Your task to perform on an android device: turn on showing notifications on the lock screen Image 0: 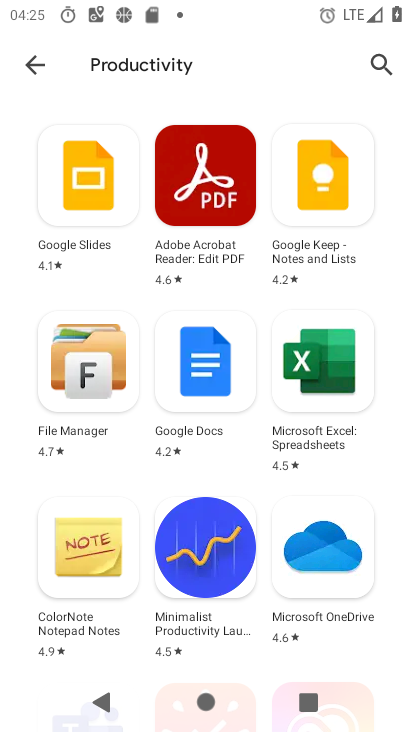
Step 0: press home button
Your task to perform on an android device: turn on showing notifications on the lock screen Image 1: 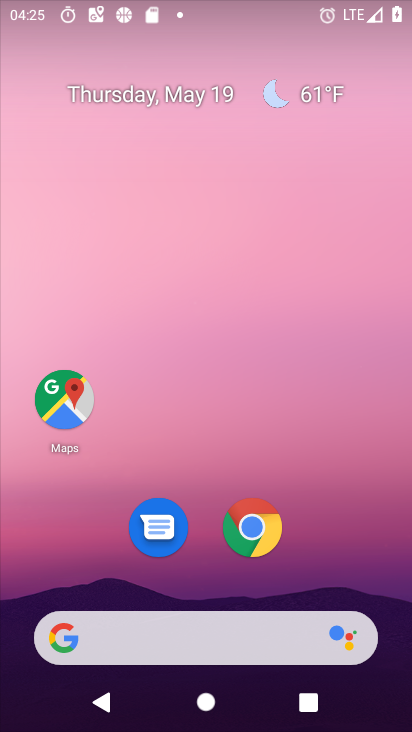
Step 1: drag from (194, 534) to (332, 51)
Your task to perform on an android device: turn on showing notifications on the lock screen Image 2: 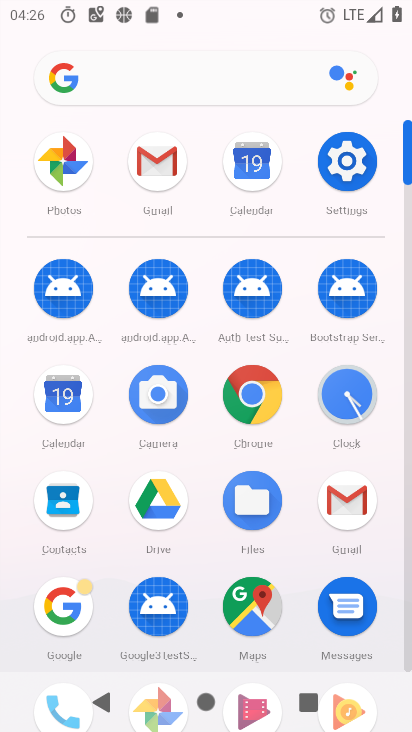
Step 2: click (352, 162)
Your task to perform on an android device: turn on showing notifications on the lock screen Image 3: 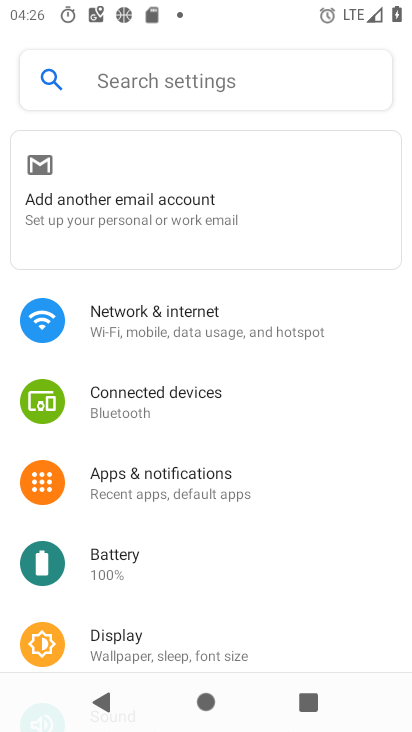
Step 3: click (172, 469)
Your task to perform on an android device: turn on showing notifications on the lock screen Image 4: 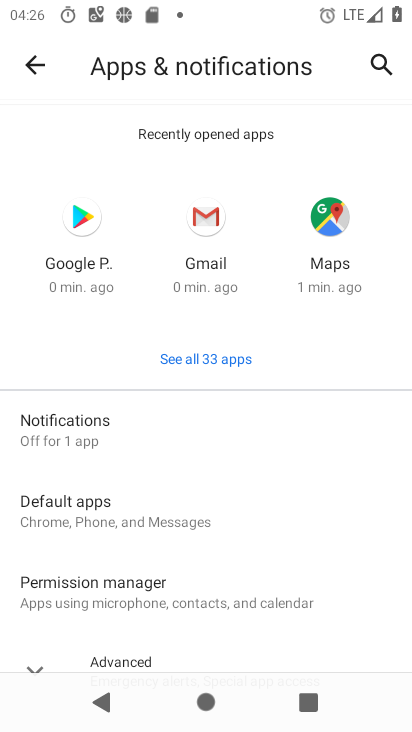
Step 4: click (128, 432)
Your task to perform on an android device: turn on showing notifications on the lock screen Image 5: 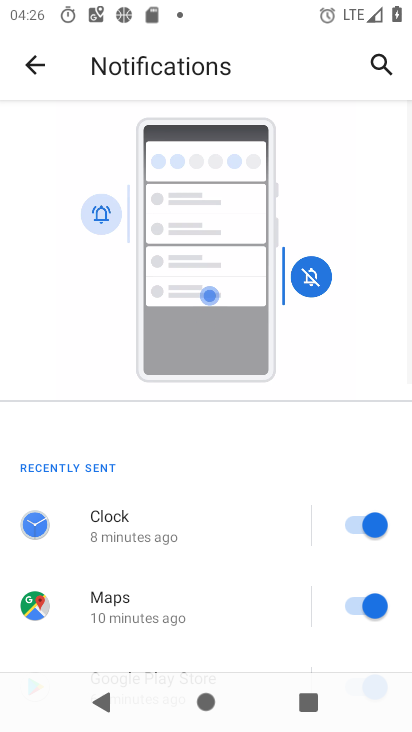
Step 5: drag from (119, 581) to (268, 78)
Your task to perform on an android device: turn on showing notifications on the lock screen Image 6: 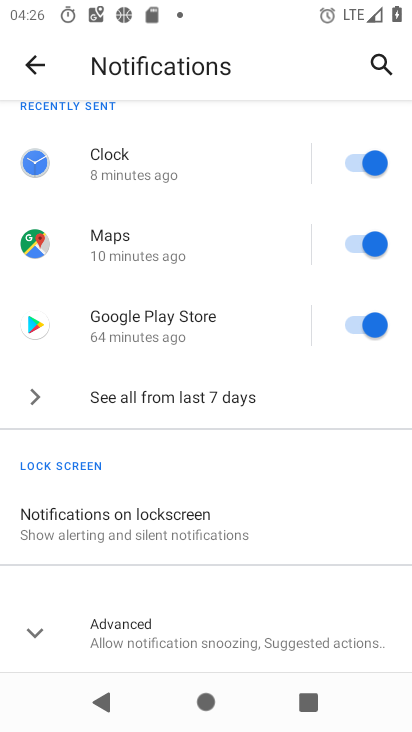
Step 6: click (136, 511)
Your task to perform on an android device: turn on showing notifications on the lock screen Image 7: 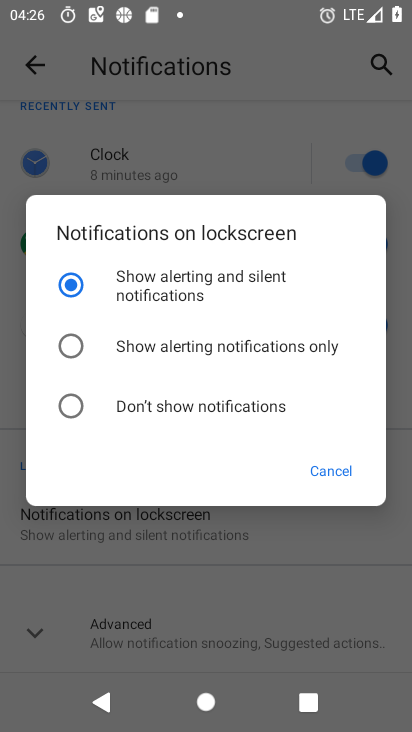
Step 7: click (70, 276)
Your task to perform on an android device: turn on showing notifications on the lock screen Image 8: 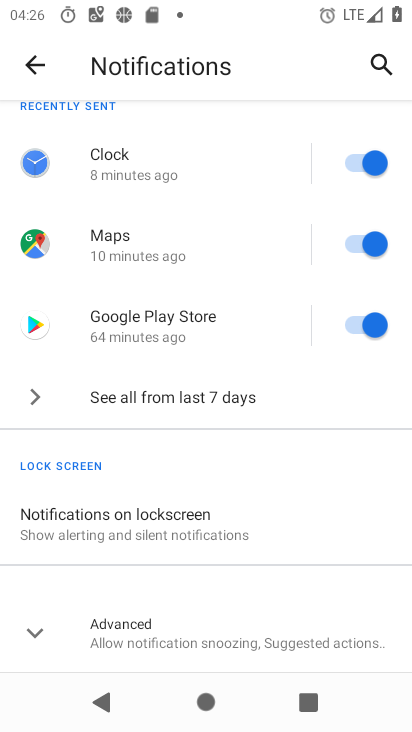
Step 8: task complete